Your task to perform on an android device: Go to wifi settings Image 0: 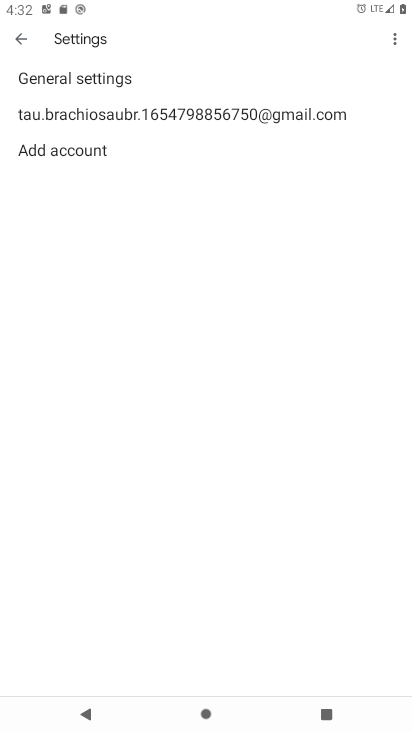
Step 0: press home button
Your task to perform on an android device: Go to wifi settings Image 1: 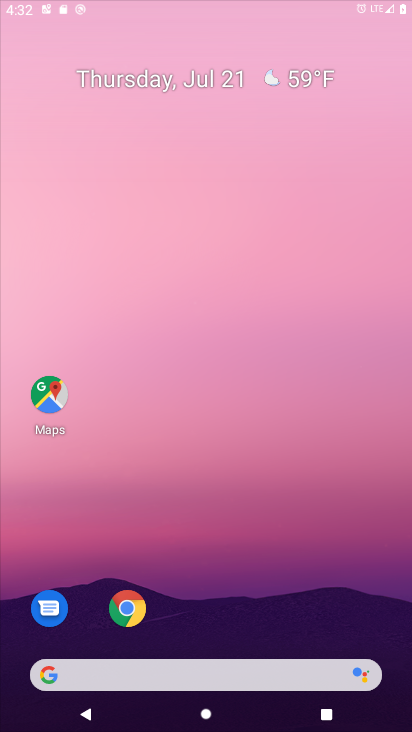
Step 1: drag from (241, 689) to (232, 42)
Your task to perform on an android device: Go to wifi settings Image 2: 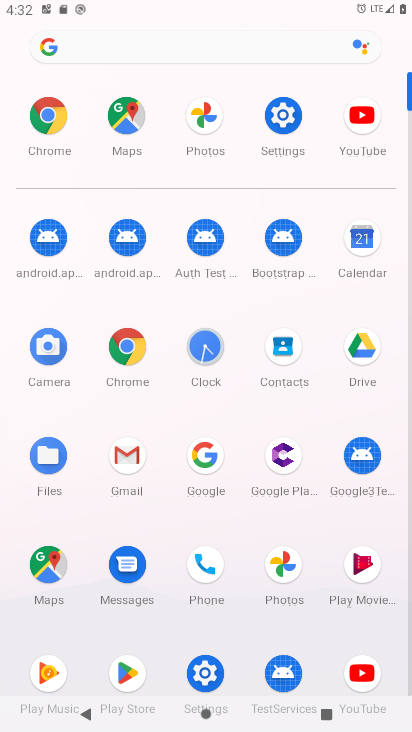
Step 2: click (278, 102)
Your task to perform on an android device: Go to wifi settings Image 3: 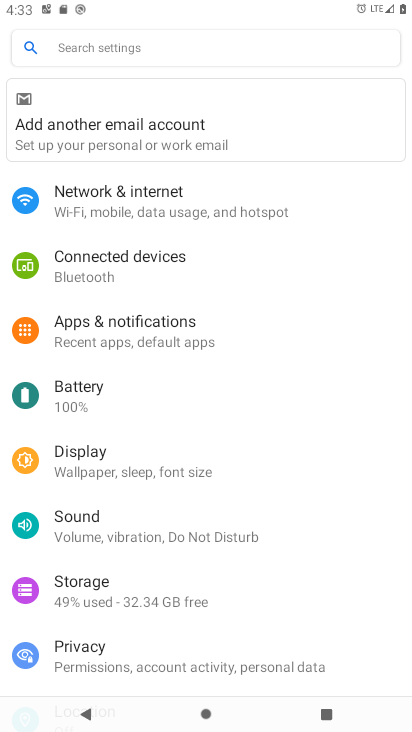
Step 3: click (189, 209)
Your task to perform on an android device: Go to wifi settings Image 4: 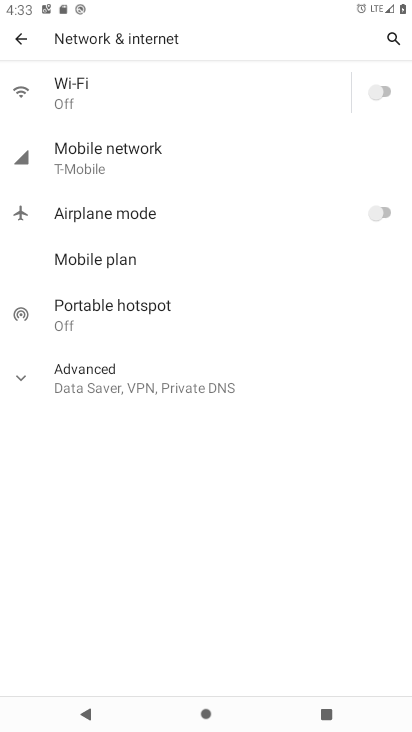
Step 4: click (81, 87)
Your task to perform on an android device: Go to wifi settings Image 5: 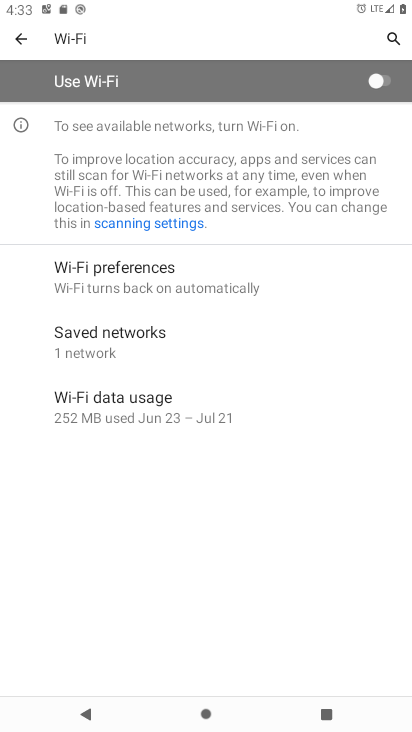
Step 5: task complete